Your task to perform on an android device: Go to Google maps Image 0: 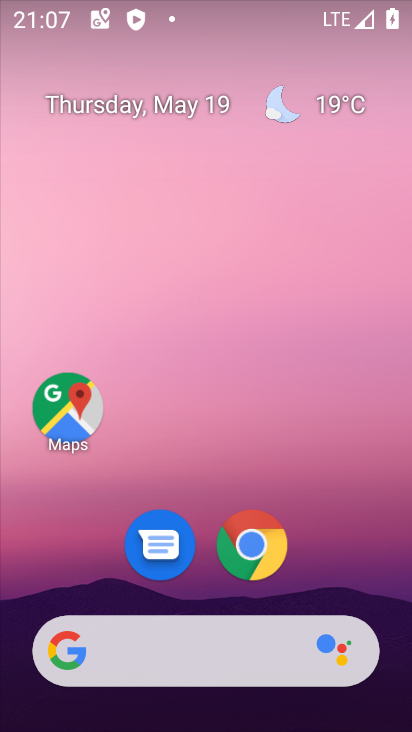
Step 0: click (78, 432)
Your task to perform on an android device: Go to Google maps Image 1: 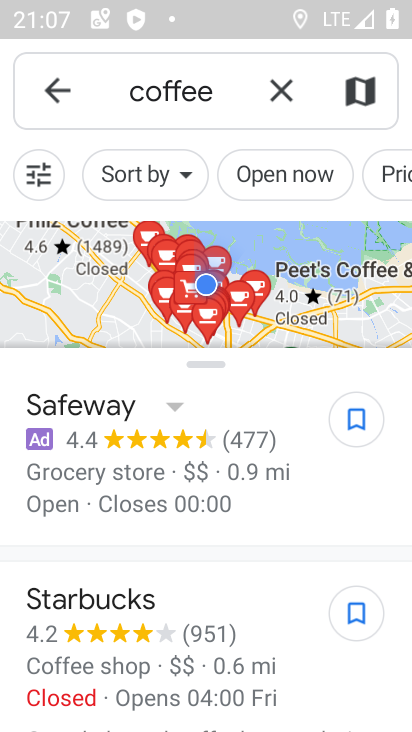
Step 1: task complete